Your task to perform on an android device: toggle pop-ups in chrome Image 0: 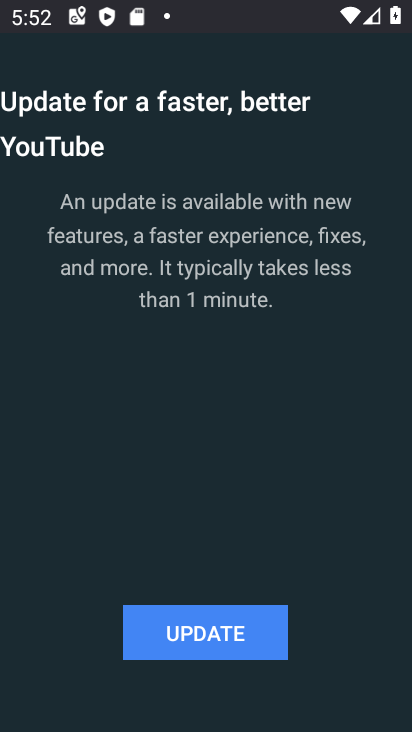
Step 0: press back button
Your task to perform on an android device: toggle pop-ups in chrome Image 1: 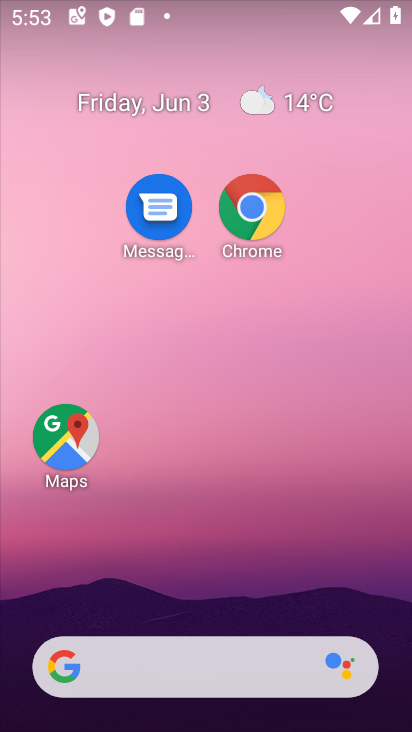
Step 1: click (256, 206)
Your task to perform on an android device: toggle pop-ups in chrome Image 2: 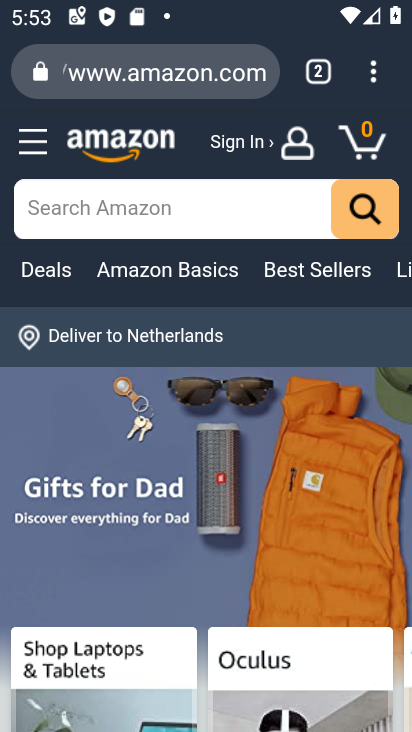
Step 2: click (374, 81)
Your task to perform on an android device: toggle pop-ups in chrome Image 3: 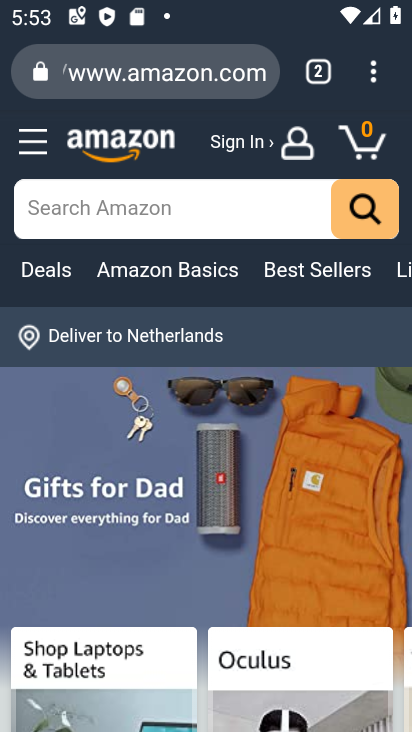
Step 3: click (368, 69)
Your task to perform on an android device: toggle pop-ups in chrome Image 4: 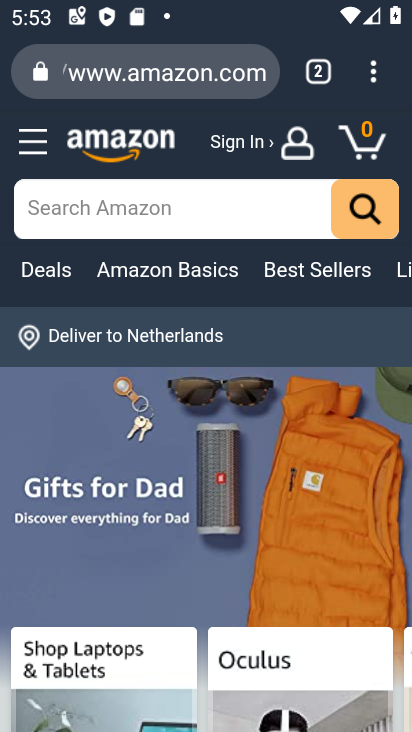
Step 4: click (374, 79)
Your task to perform on an android device: toggle pop-ups in chrome Image 5: 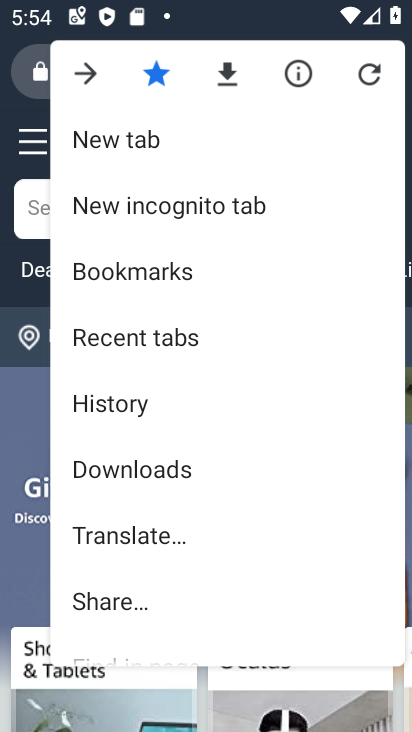
Step 5: drag from (199, 524) to (261, 142)
Your task to perform on an android device: toggle pop-ups in chrome Image 6: 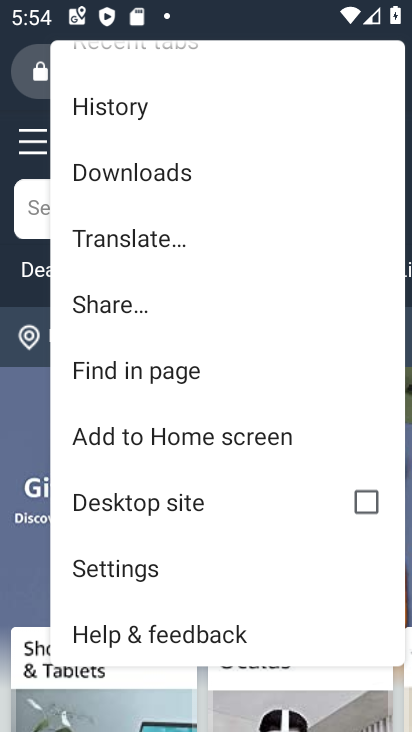
Step 6: click (140, 576)
Your task to perform on an android device: toggle pop-ups in chrome Image 7: 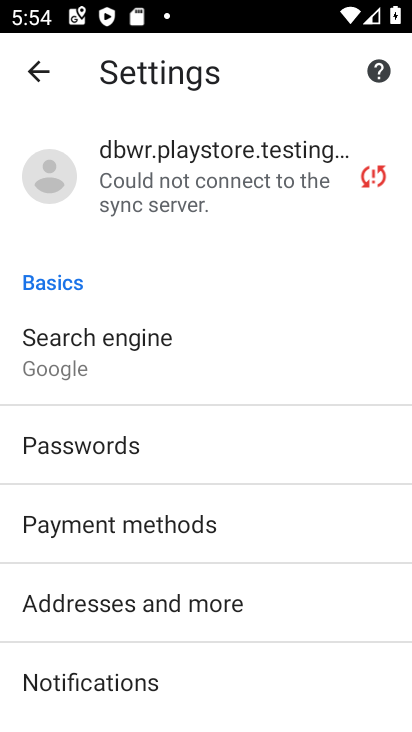
Step 7: drag from (152, 600) to (203, 387)
Your task to perform on an android device: toggle pop-ups in chrome Image 8: 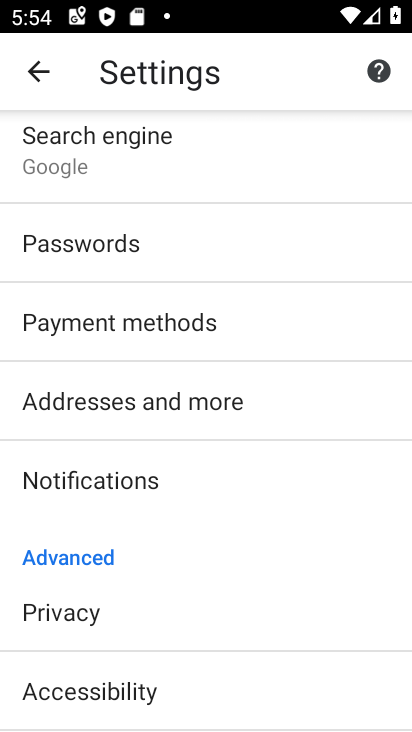
Step 8: click (204, 408)
Your task to perform on an android device: toggle pop-ups in chrome Image 9: 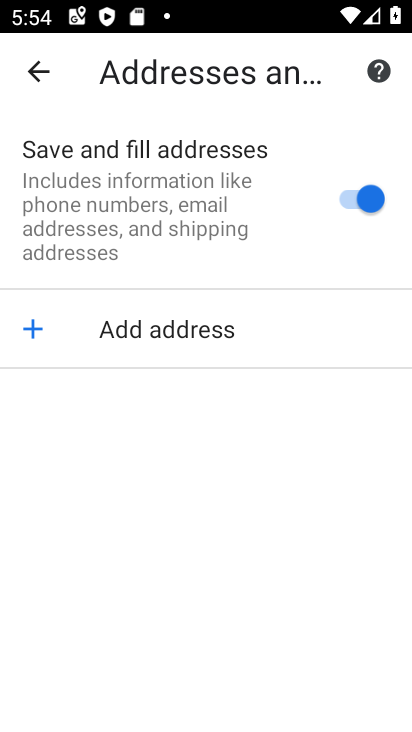
Step 9: drag from (159, 621) to (166, 408)
Your task to perform on an android device: toggle pop-ups in chrome Image 10: 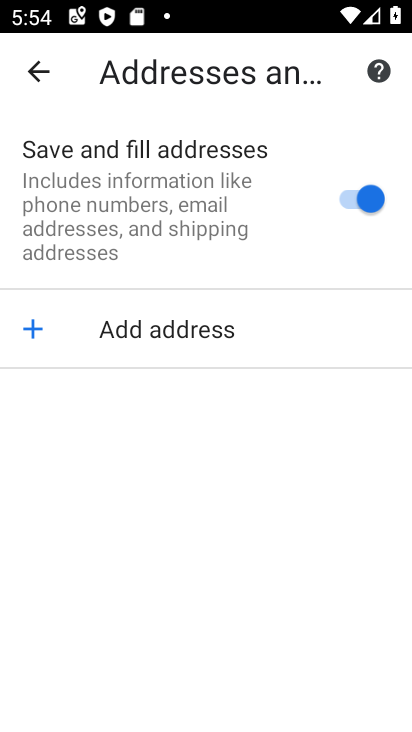
Step 10: click (28, 87)
Your task to perform on an android device: toggle pop-ups in chrome Image 11: 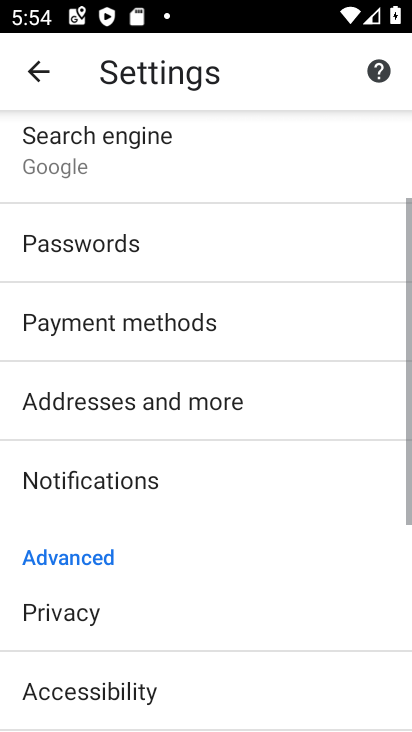
Step 11: click (34, 72)
Your task to perform on an android device: toggle pop-ups in chrome Image 12: 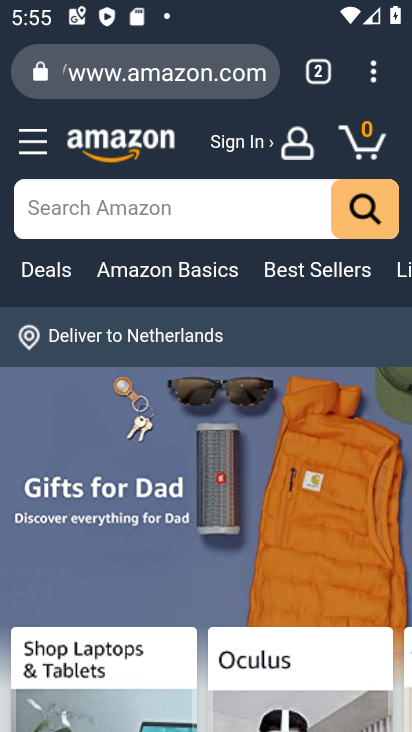
Step 12: click (371, 83)
Your task to perform on an android device: toggle pop-ups in chrome Image 13: 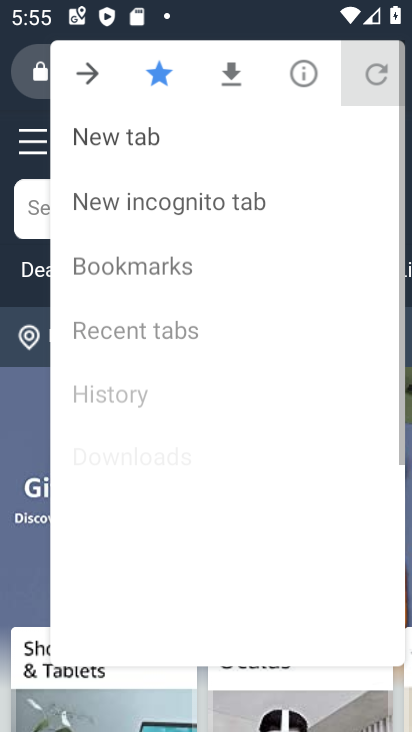
Step 13: click (366, 80)
Your task to perform on an android device: toggle pop-ups in chrome Image 14: 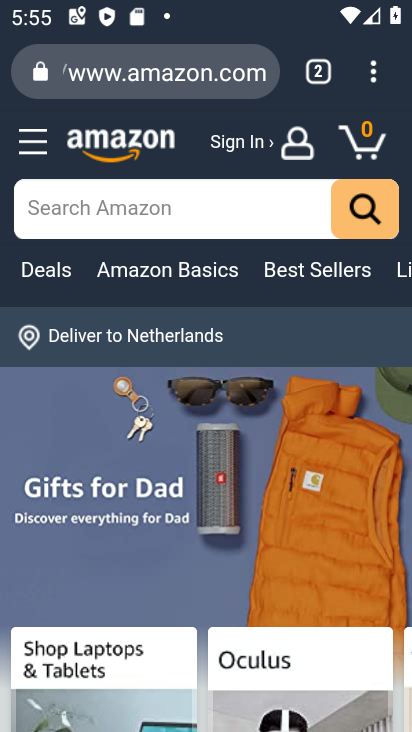
Step 14: click (373, 76)
Your task to perform on an android device: toggle pop-ups in chrome Image 15: 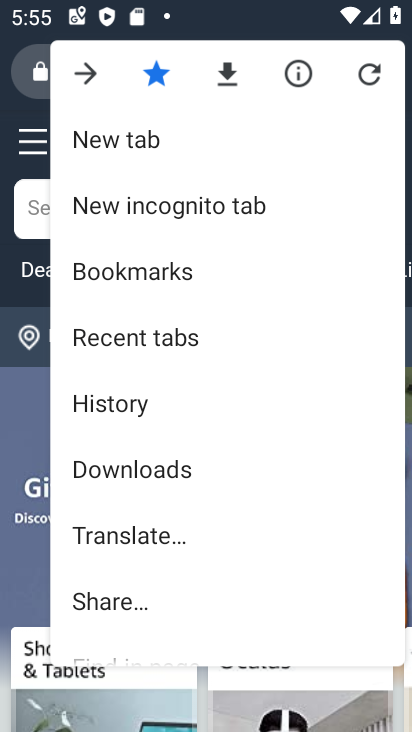
Step 15: drag from (178, 570) to (165, 361)
Your task to perform on an android device: toggle pop-ups in chrome Image 16: 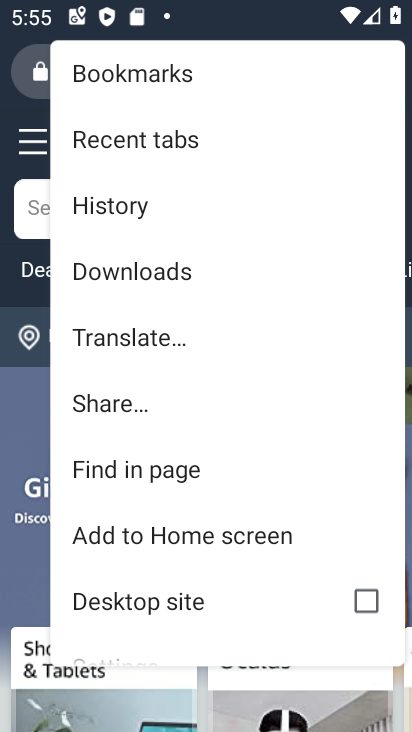
Step 16: drag from (181, 564) to (199, 404)
Your task to perform on an android device: toggle pop-ups in chrome Image 17: 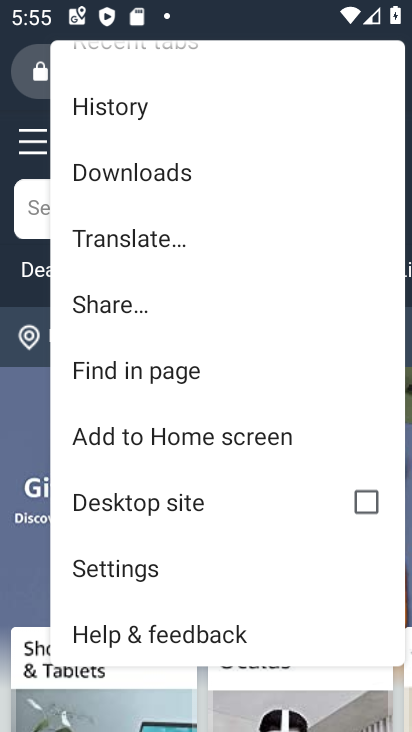
Step 17: click (135, 579)
Your task to perform on an android device: toggle pop-ups in chrome Image 18: 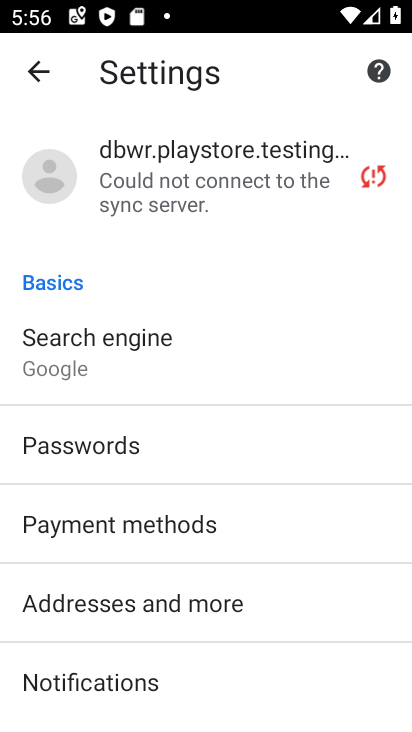
Step 18: drag from (151, 596) to (154, 416)
Your task to perform on an android device: toggle pop-ups in chrome Image 19: 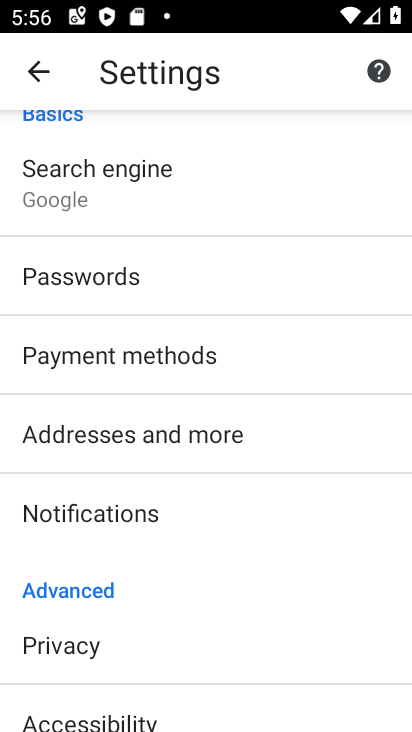
Step 19: drag from (147, 630) to (151, 410)
Your task to perform on an android device: toggle pop-ups in chrome Image 20: 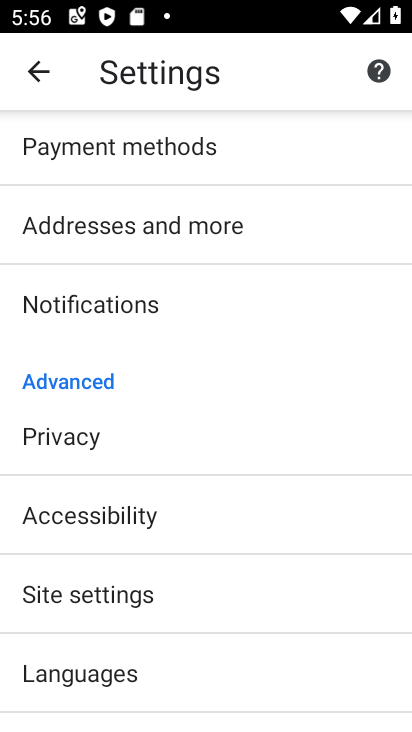
Step 20: drag from (131, 634) to (152, 431)
Your task to perform on an android device: toggle pop-ups in chrome Image 21: 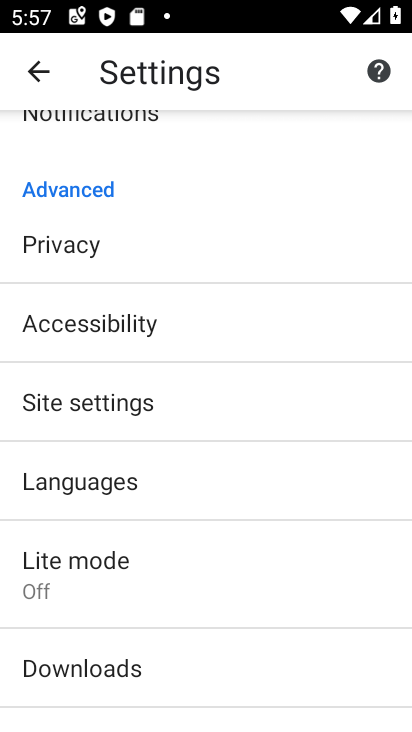
Step 21: drag from (166, 535) to (170, 386)
Your task to perform on an android device: toggle pop-ups in chrome Image 22: 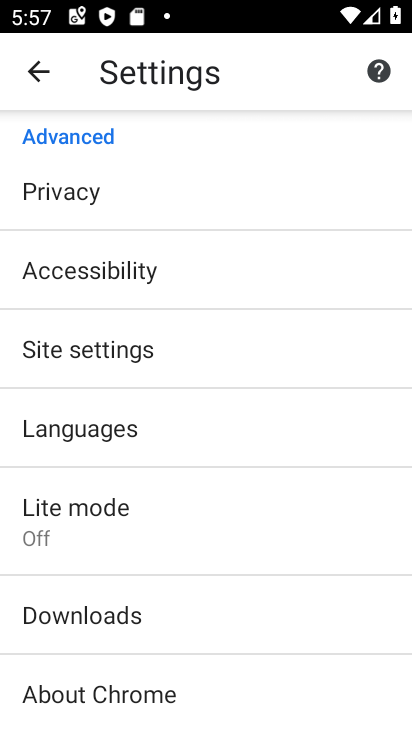
Step 22: click (112, 336)
Your task to perform on an android device: toggle pop-ups in chrome Image 23: 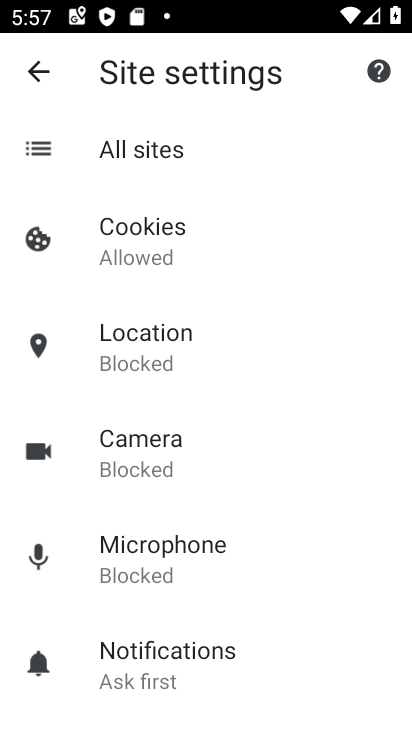
Step 23: drag from (193, 613) to (220, 305)
Your task to perform on an android device: toggle pop-ups in chrome Image 24: 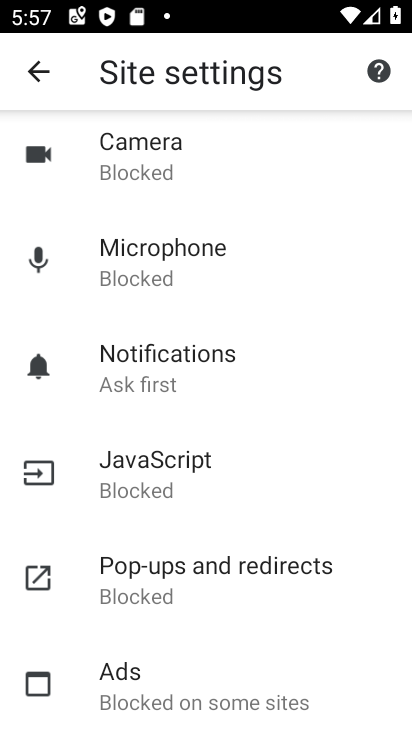
Step 24: click (189, 586)
Your task to perform on an android device: toggle pop-ups in chrome Image 25: 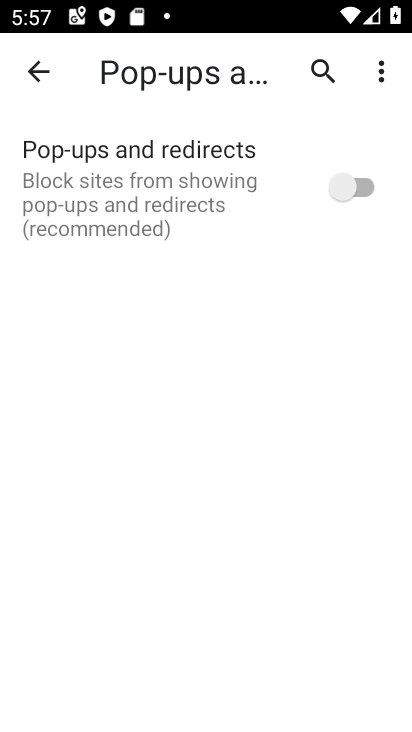
Step 25: click (362, 187)
Your task to perform on an android device: toggle pop-ups in chrome Image 26: 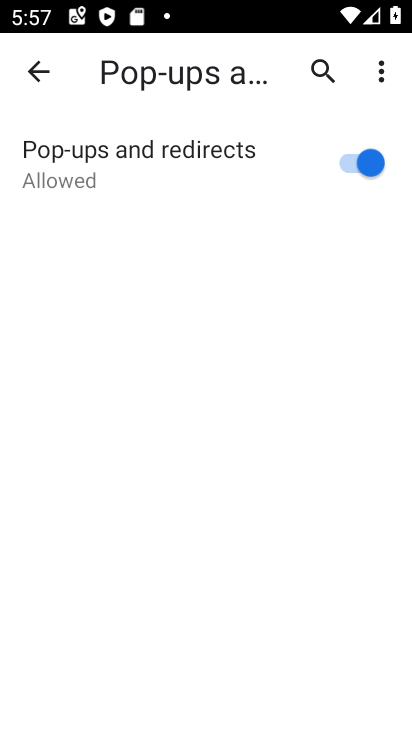
Step 26: task complete